Your task to perform on an android device: Go to Google maps Image 0: 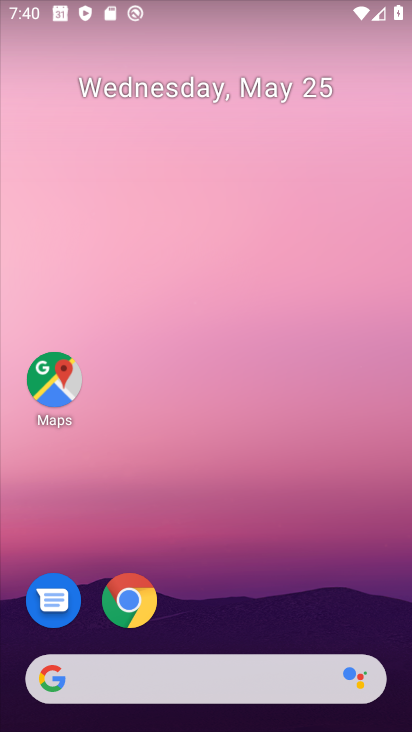
Step 0: click (46, 374)
Your task to perform on an android device: Go to Google maps Image 1: 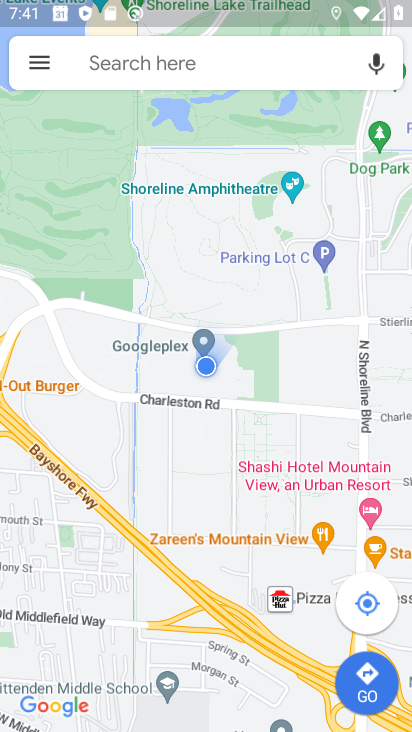
Step 1: task complete